Your task to perform on an android device: turn on showing notifications on the lock screen Image 0: 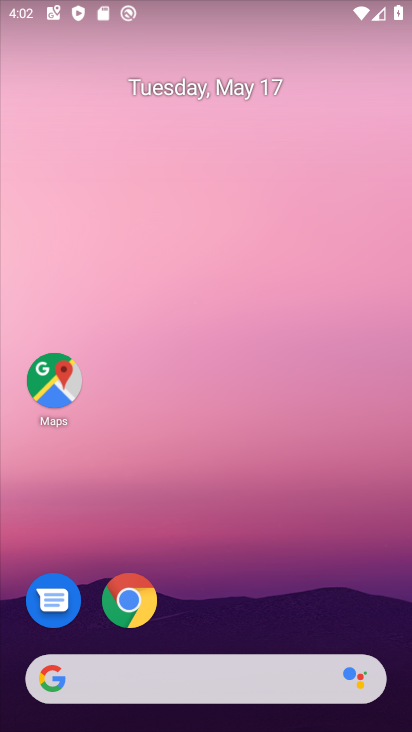
Step 0: drag from (211, 618) to (257, 1)
Your task to perform on an android device: turn on showing notifications on the lock screen Image 1: 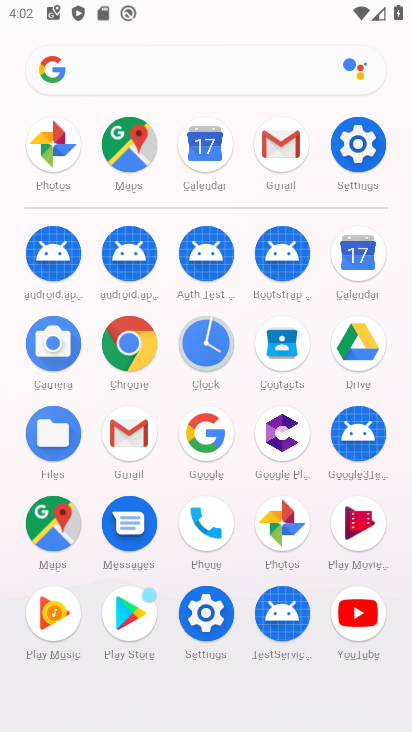
Step 1: click (360, 167)
Your task to perform on an android device: turn on showing notifications on the lock screen Image 2: 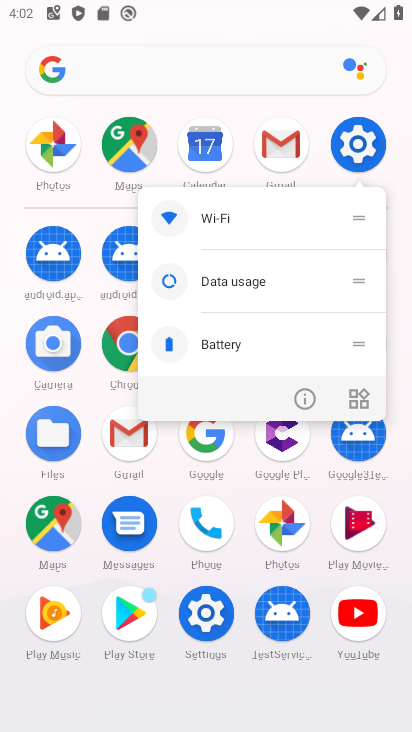
Step 2: click (354, 144)
Your task to perform on an android device: turn on showing notifications on the lock screen Image 3: 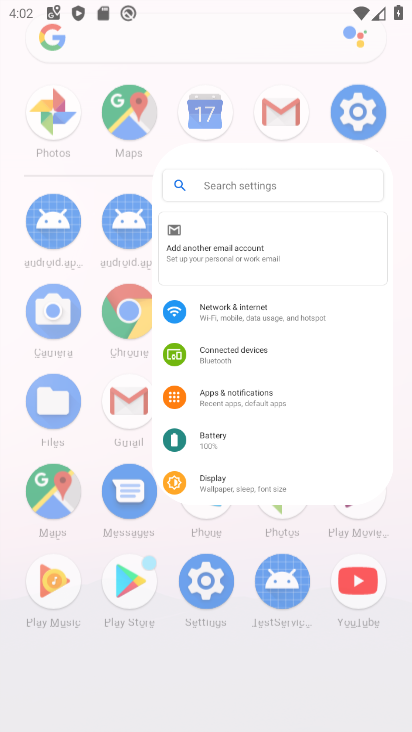
Step 3: click (354, 144)
Your task to perform on an android device: turn on showing notifications on the lock screen Image 4: 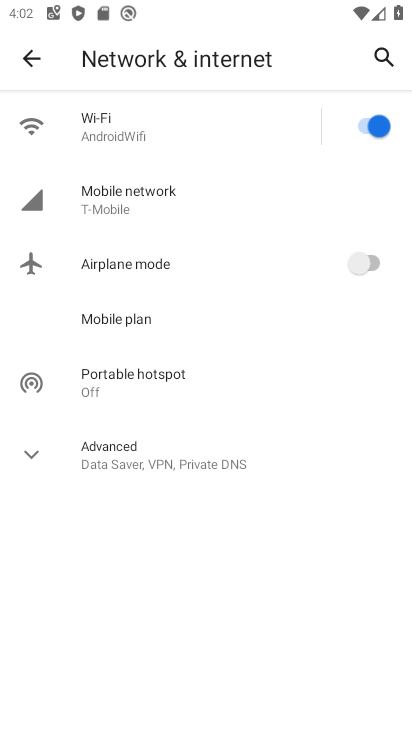
Step 4: click (39, 57)
Your task to perform on an android device: turn on showing notifications on the lock screen Image 5: 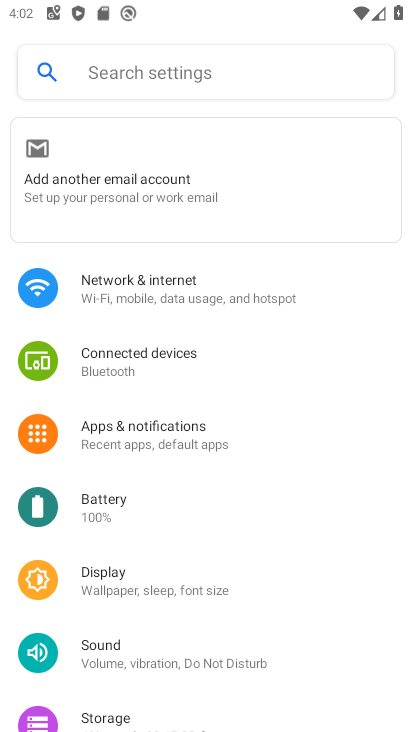
Step 5: click (158, 423)
Your task to perform on an android device: turn on showing notifications on the lock screen Image 6: 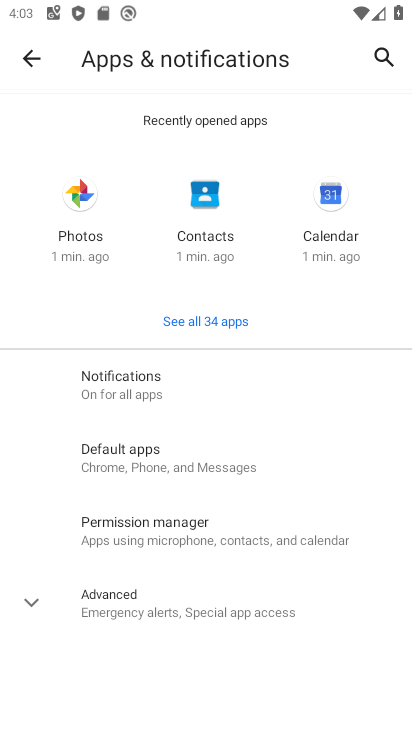
Step 6: click (128, 403)
Your task to perform on an android device: turn on showing notifications on the lock screen Image 7: 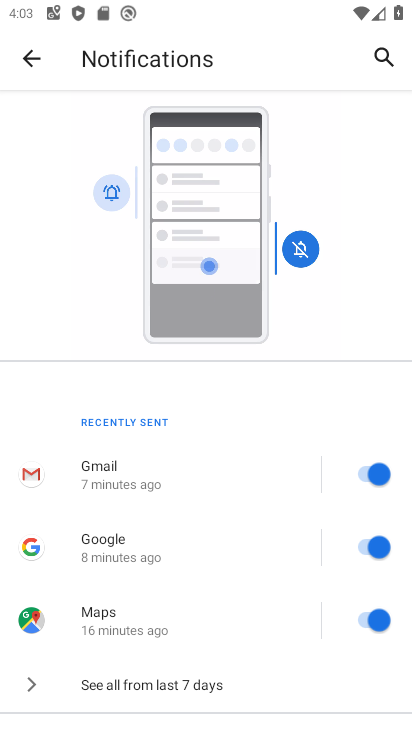
Step 7: drag from (142, 584) to (236, 262)
Your task to perform on an android device: turn on showing notifications on the lock screen Image 8: 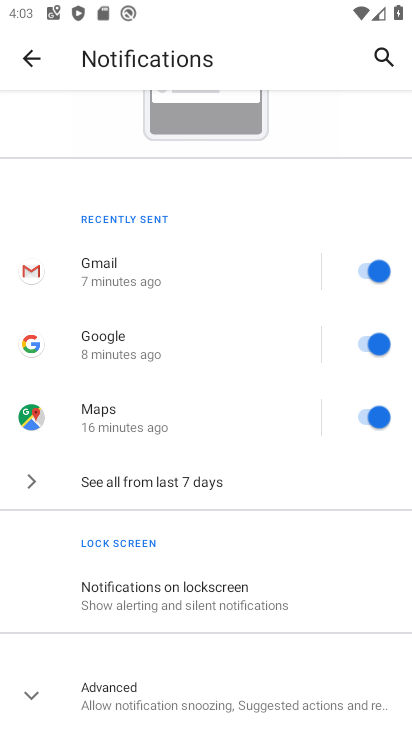
Step 8: click (215, 604)
Your task to perform on an android device: turn on showing notifications on the lock screen Image 9: 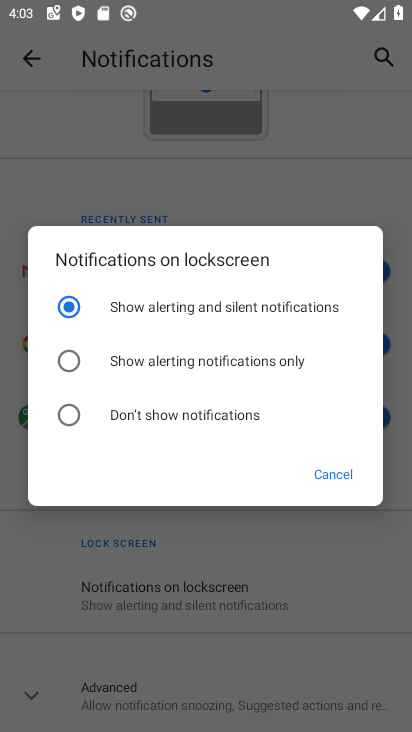
Step 9: task complete